Your task to perform on an android device: Open battery settings Image 0: 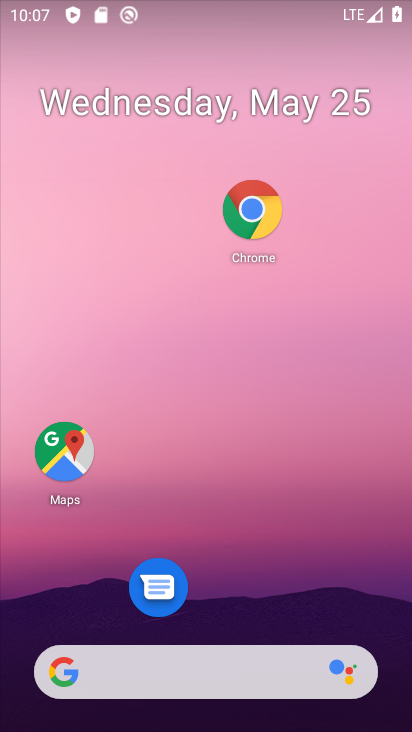
Step 0: drag from (228, 590) to (300, 6)
Your task to perform on an android device: Open battery settings Image 1: 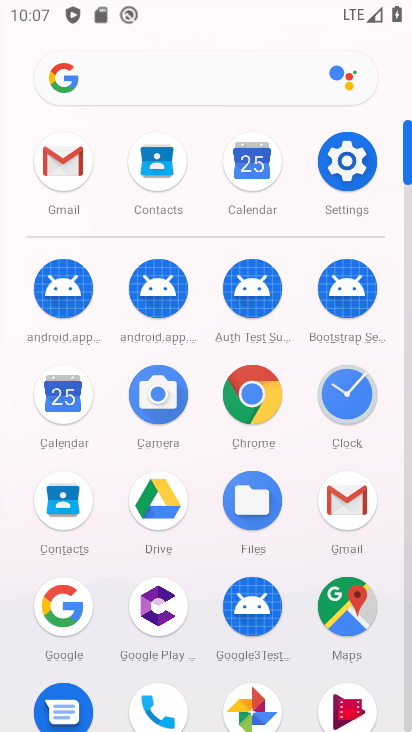
Step 1: click (361, 171)
Your task to perform on an android device: Open battery settings Image 2: 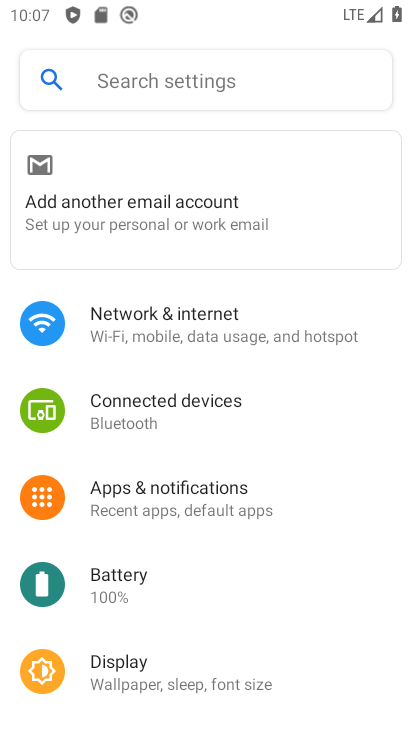
Step 2: click (175, 602)
Your task to perform on an android device: Open battery settings Image 3: 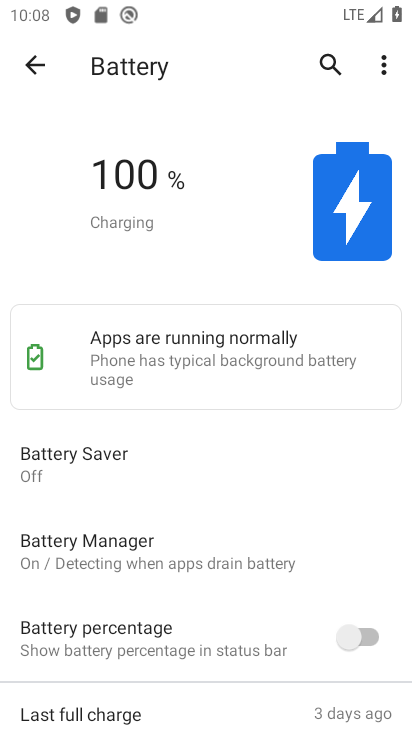
Step 3: task complete